Your task to perform on an android device: Open Android settings Image 0: 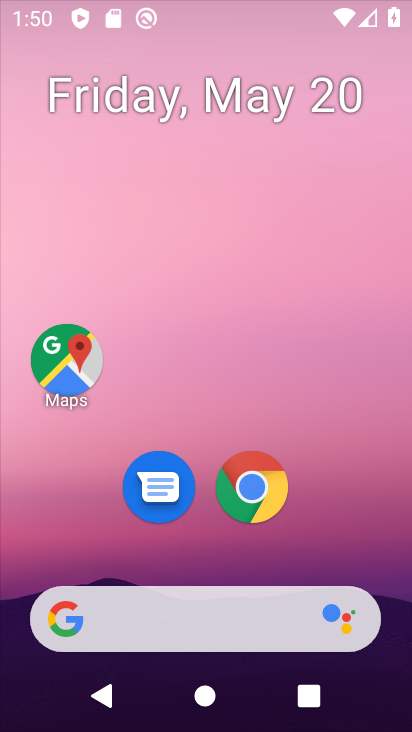
Step 0: press back button
Your task to perform on an android device: Open Android settings Image 1: 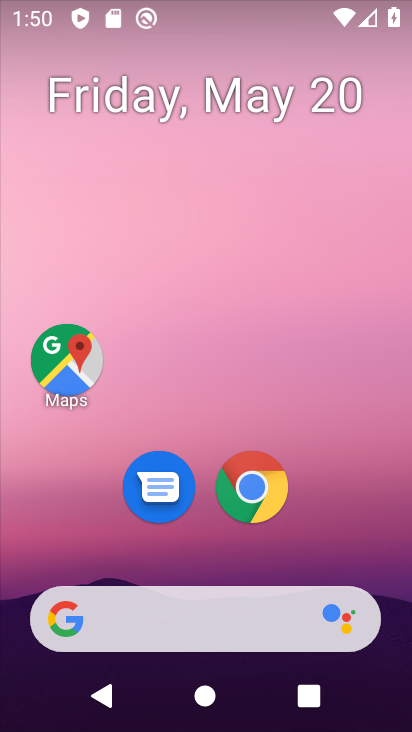
Step 1: drag from (252, 664) to (207, 50)
Your task to perform on an android device: Open Android settings Image 2: 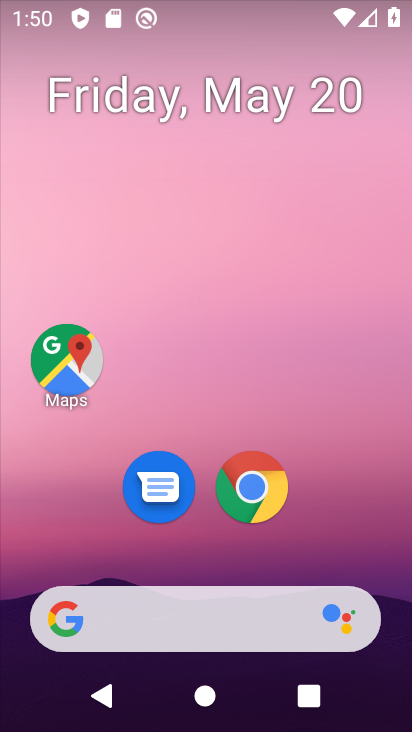
Step 2: drag from (274, 549) to (227, 99)
Your task to perform on an android device: Open Android settings Image 3: 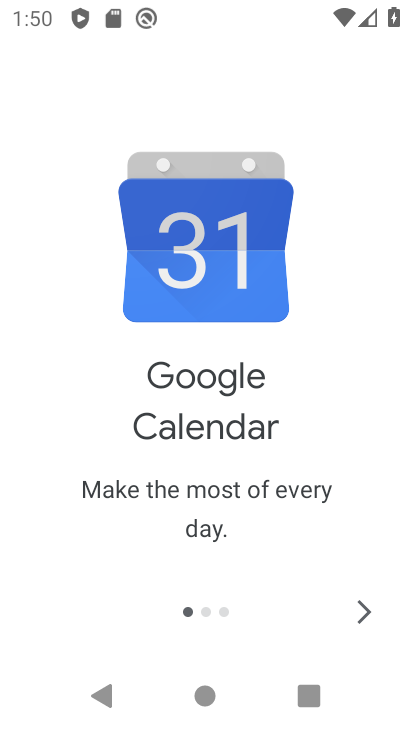
Step 3: click (364, 603)
Your task to perform on an android device: Open Android settings Image 4: 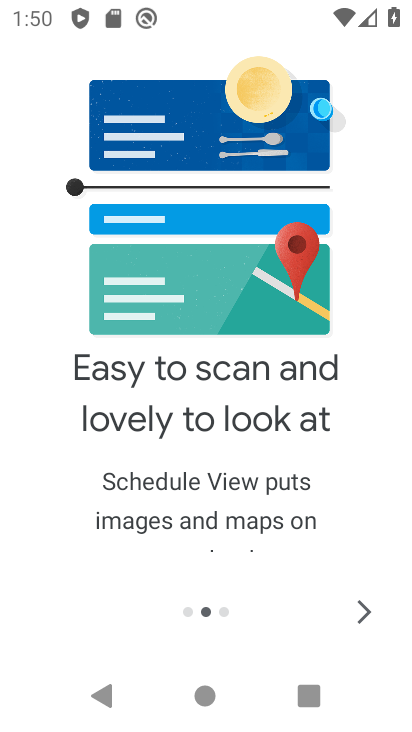
Step 4: click (376, 608)
Your task to perform on an android device: Open Android settings Image 5: 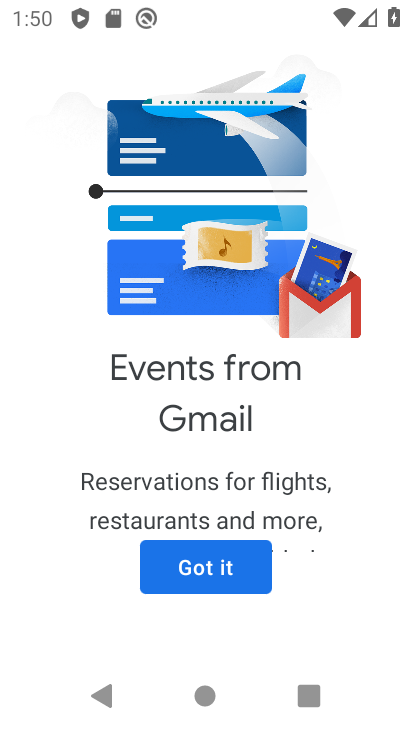
Step 5: click (241, 562)
Your task to perform on an android device: Open Android settings Image 6: 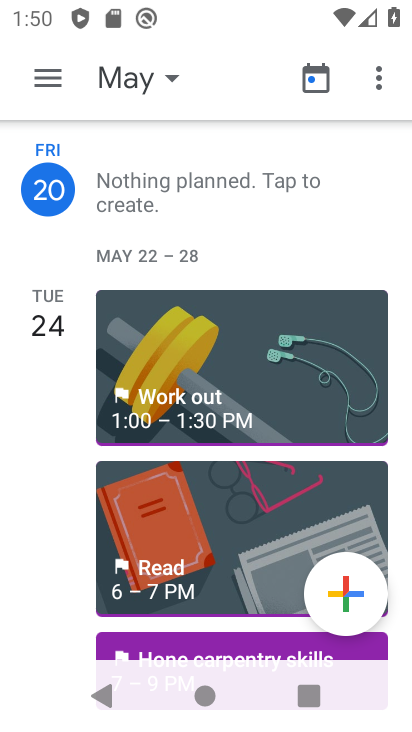
Step 6: click (46, 77)
Your task to perform on an android device: Open Android settings Image 7: 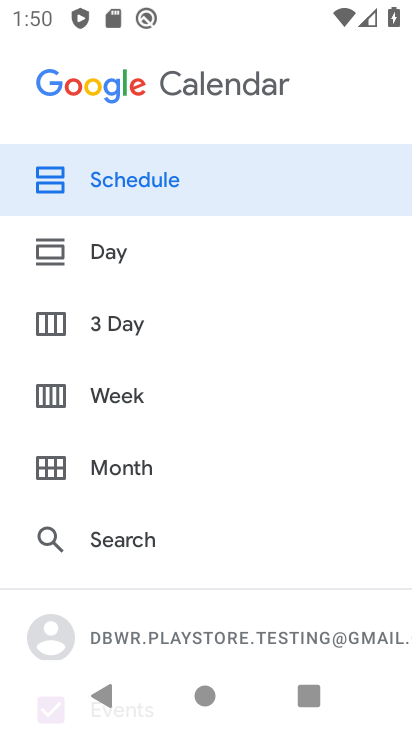
Step 7: press back button
Your task to perform on an android device: Open Android settings Image 8: 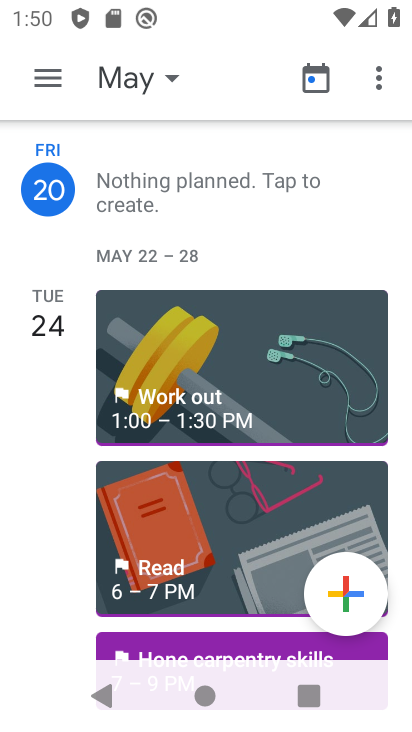
Step 8: press home button
Your task to perform on an android device: Open Android settings Image 9: 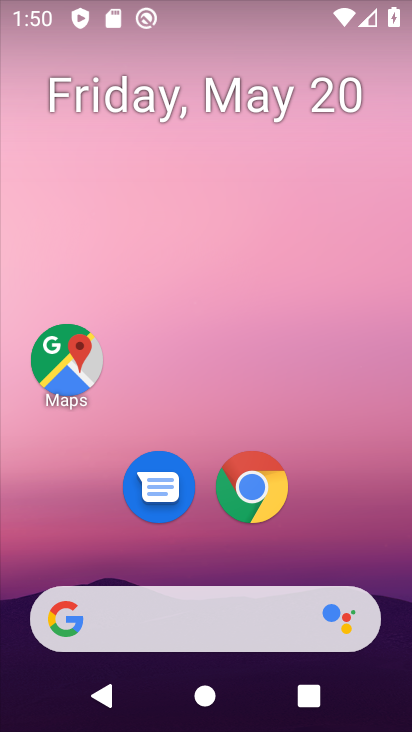
Step 9: drag from (254, 678) to (176, 27)
Your task to perform on an android device: Open Android settings Image 10: 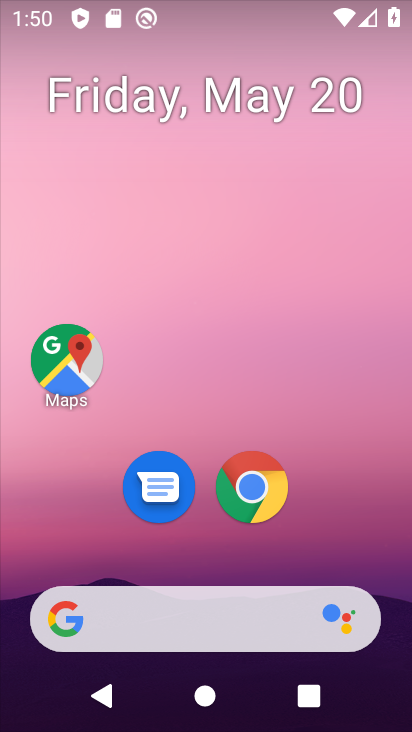
Step 10: drag from (354, 565) to (259, 0)
Your task to perform on an android device: Open Android settings Image 11: 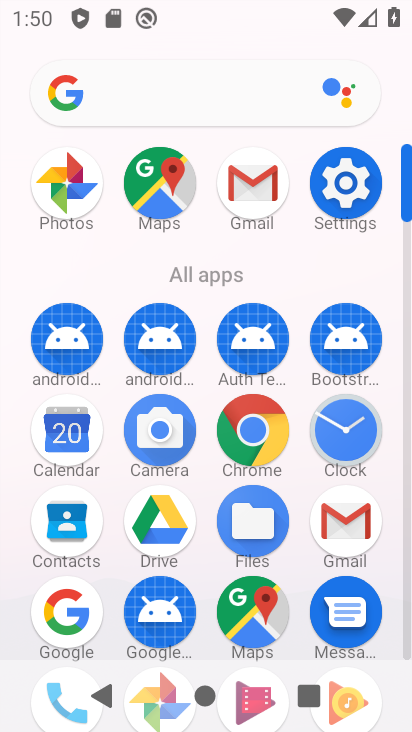
Step 11: click (341, 181)
Your task to perform on an android device: Open Android settings Image 12: 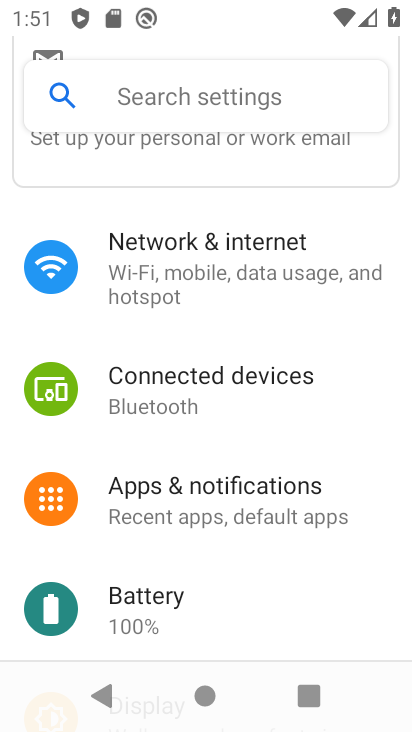
Step 12: drag from (251, 579) to (259, 261)
Your task to perform on an android device: Open Android settings Image 13: 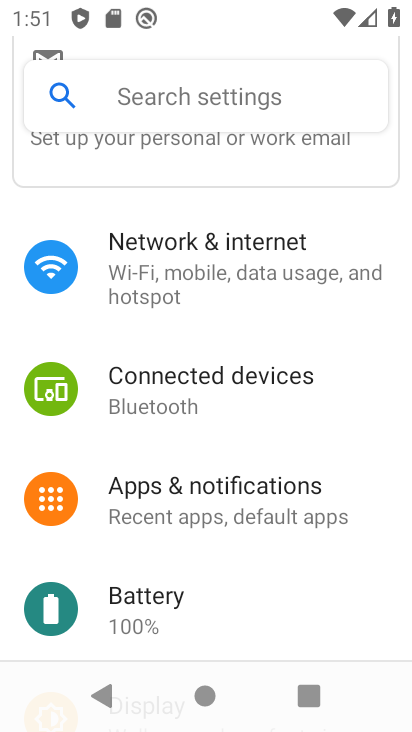
Step 13: drag from (212, 568) to (178, 128)
Your task to perform on an android device: Open Android settings Image 14: 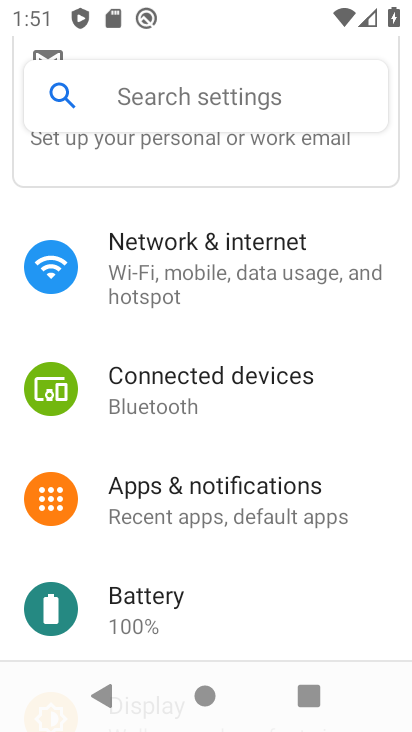
Step 14: drag from (310, 616) to (247, 114)
Your task to perform on an android device: Open Android settings Image 15: 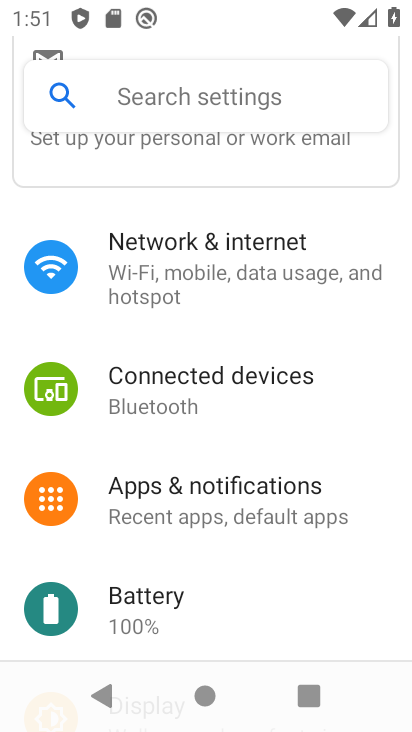
Step 15: drag from (220, 571) to (274, 164)
Your task to perform on an android device: Open Android settings Image 16: 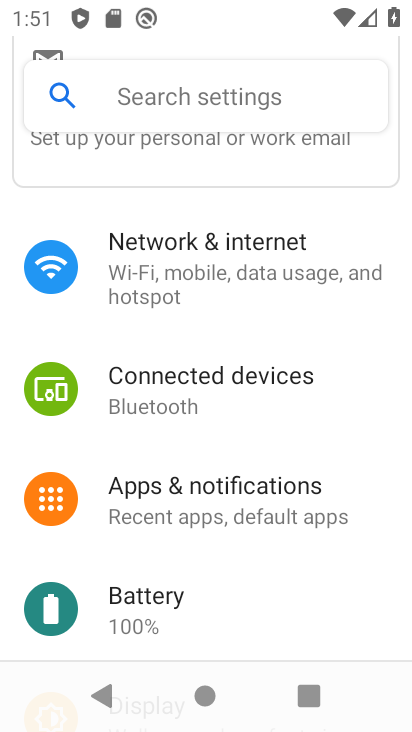
Step 16: drag from (205, 495) to (189, 146)
Your task to perform on an android device: Open Android settings Image 17: 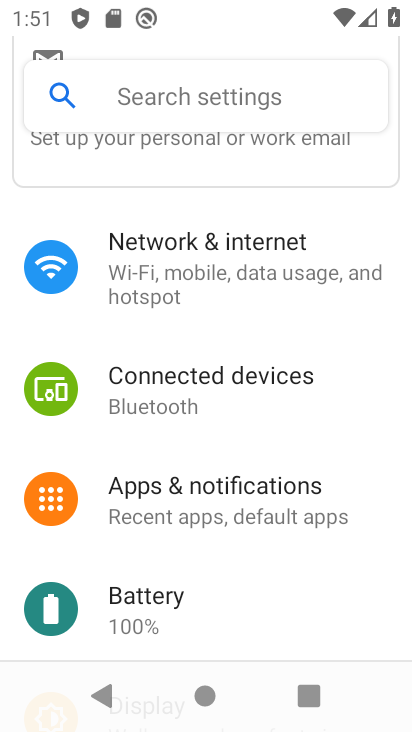
Step 17: drag from (197, 501) to (253, 5)
Your task to perform on an android device: Open Android settings Image 18: 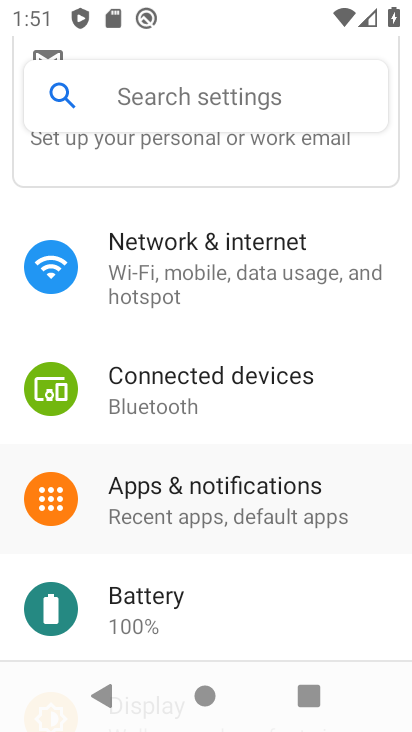
Step 18: drag from (268, 519) to (214, 180)
Your task to perform on an android device: Open Android settings Image 19: 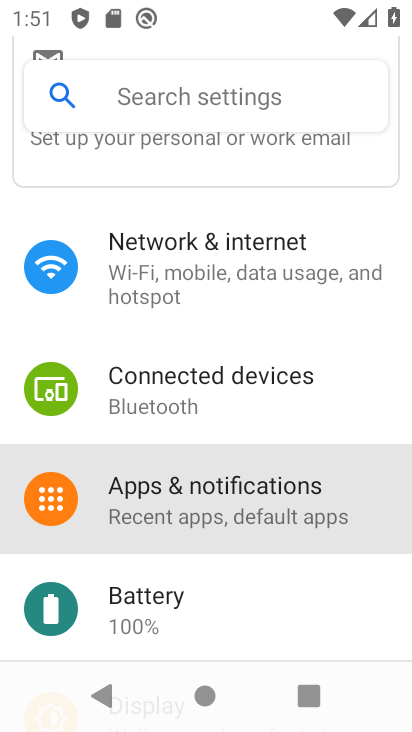
Step 19: drag from (233, 539) to (173, 67)
Your task to perform on an android device: Open Android settings Image 20: 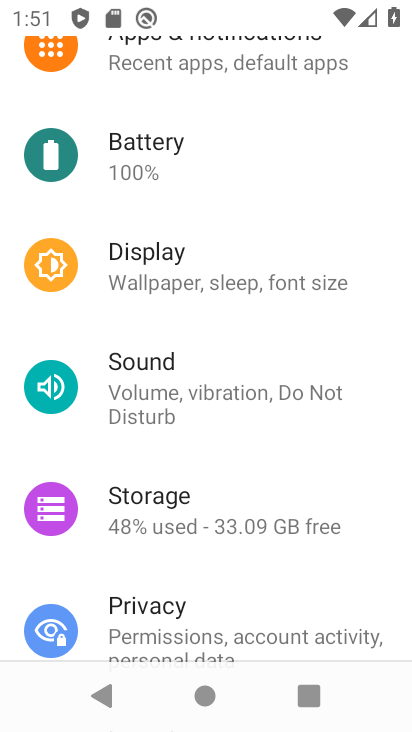
Step 20: drag from (229, 459) to (204, 117)
Your task to perform on an android device: Open Android settings Image 21: 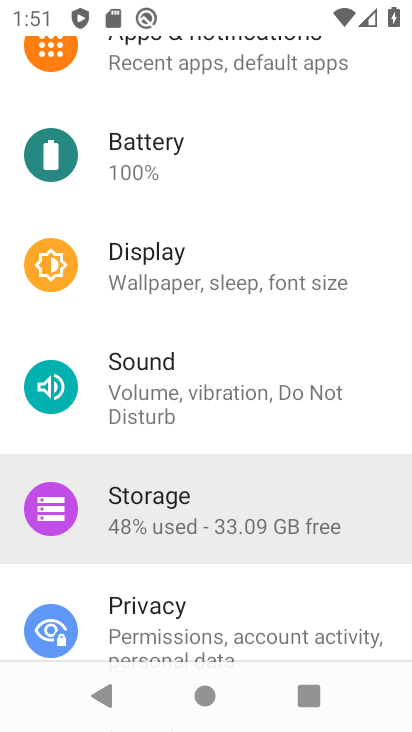
Step 21: drag from (236, 521) to (205, 62)
Your task to perform on an android device: Open Android settings Image 22: 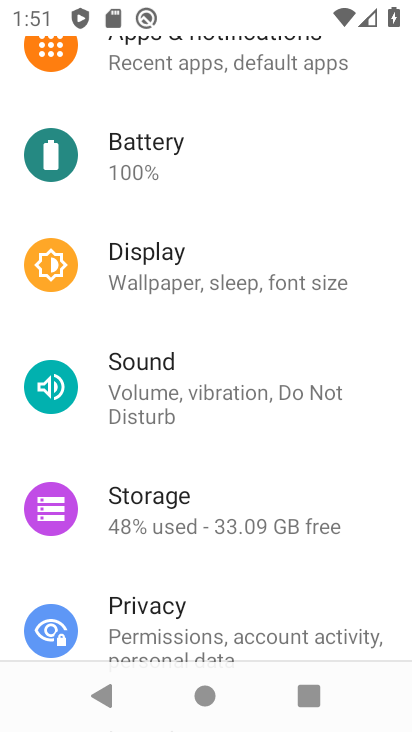
Step 22: click (110, 41)
Your task to perform on an android device: Open Android settings Image 23: 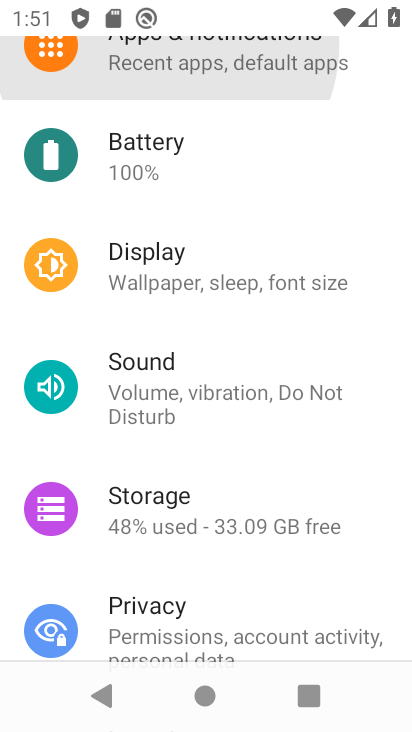
Step 23: drag from (171, 455) to (248, 69)
Your task to perform on an android device: Open Android settings Image 24: 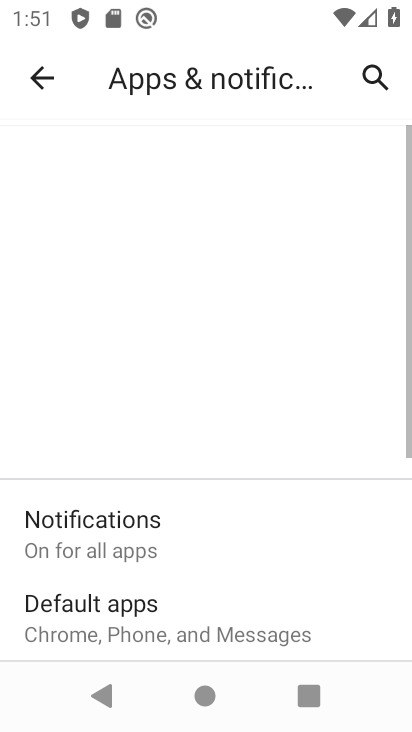
Step 24: drag from (236, 413) to (183, 79)
Your task to perform on an android device: Open Android settings Image 25: 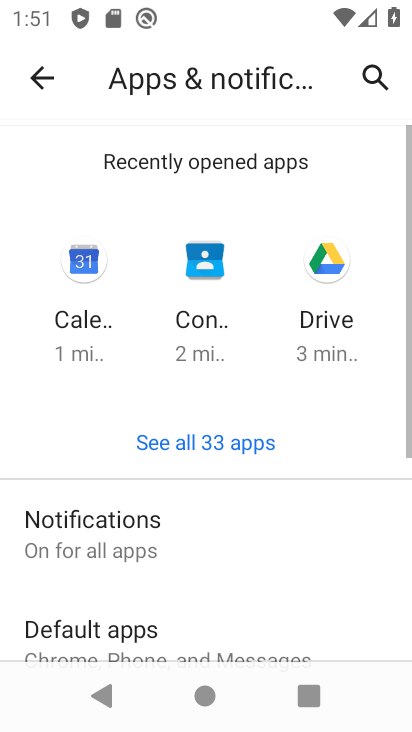
Step 25: click (37, 76)
Your task to perform on an android device: Open Android settings Image 26: 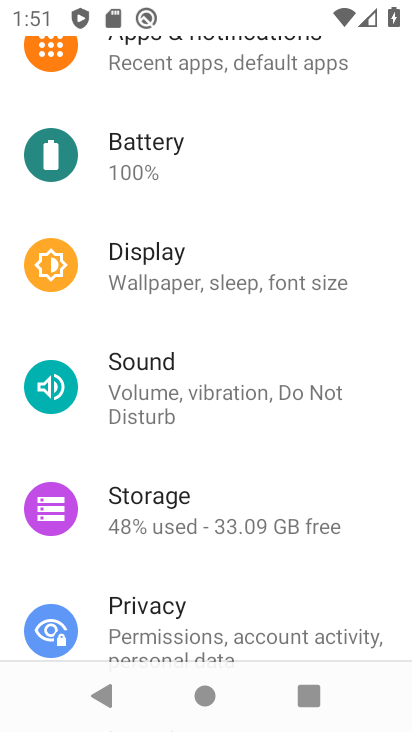
Step 26: drag from (185, 536) to (210, 104)
Your task to perform on an android device: Open Android settings Image 27: 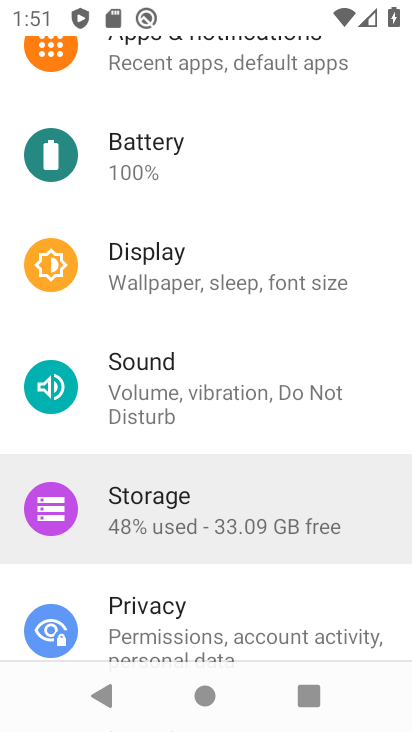
Step 27: drag from (199, 465) to (232, 20)
Your task to perform on an android device: Open Android settings Image 28: 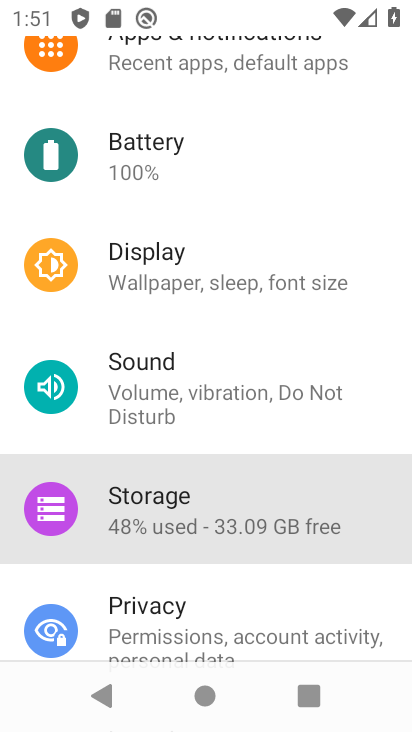
Step 28: drag from (254, 400) to (311, 100)
Your task to perform on an android device: Open Android settings Image 29: 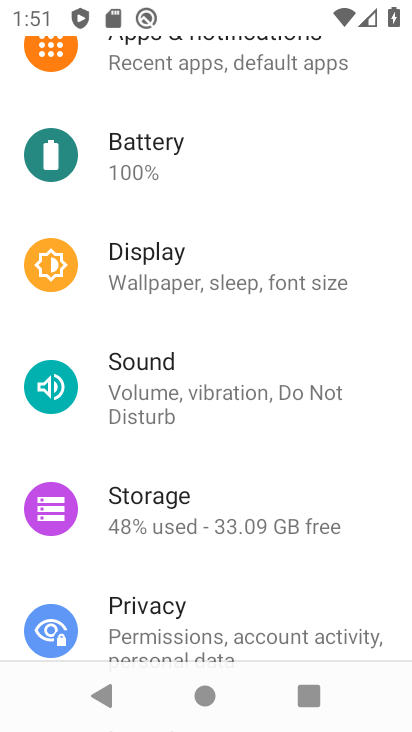
Step 29: drag from (250, 552) to (250, 208)
Your task to perform on an android device: Open Android settings Image 30: 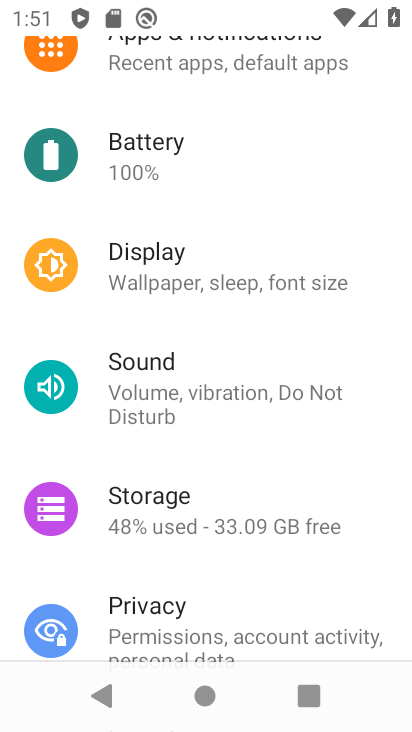
Step 30: drag from (220, 459) to (227, 199)
Your task to perform on an android device: Open Android settings Image 31: 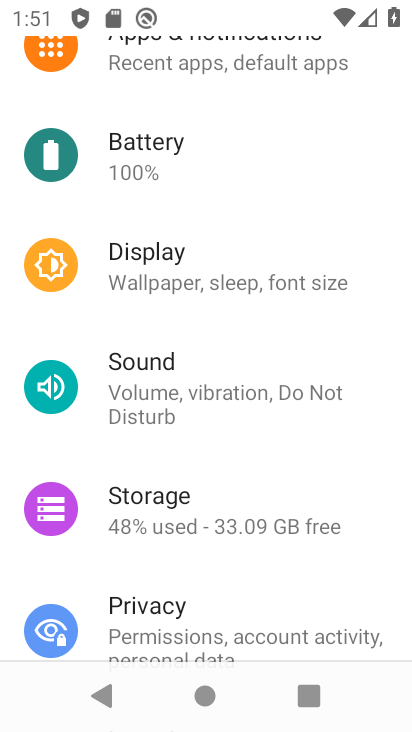
Step 31: drag from (182, 572) to (126, 186)
Your task to perform on an android device: Open Android settings Image 32: 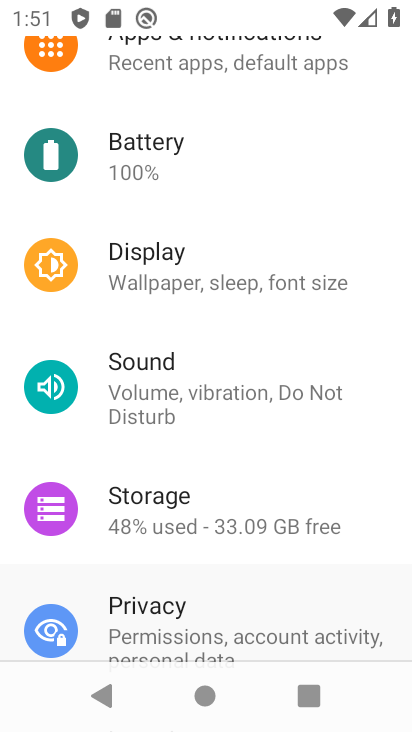
Step 32: drag from (232, 498) to (210, 165)
Your task to perform on an android device: Open Android settings Image 33: 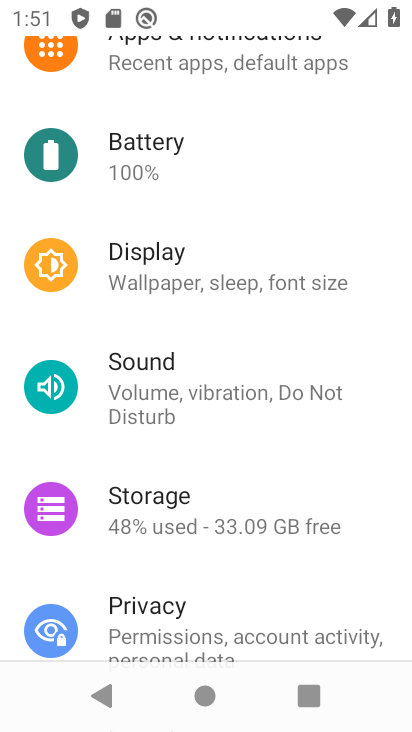
Step 33: drag from (231, 563) to (303, 89)
Your task to perform on an android device: Open Android settings Image 34: 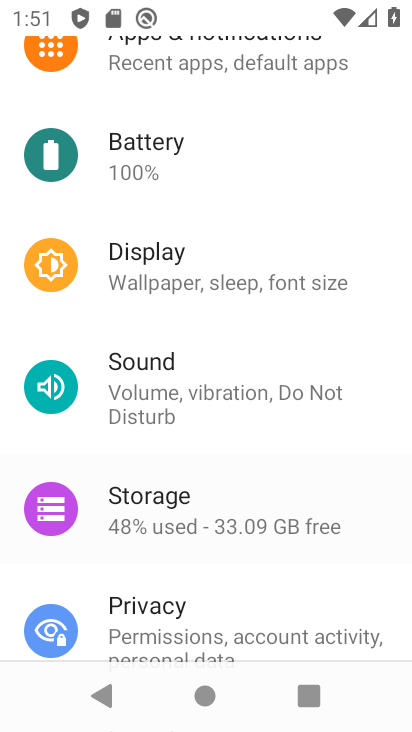
Step 34: drag from (259, 518) to (314, 152)
Your task to perform on an android device: Open Android settings Image 35: 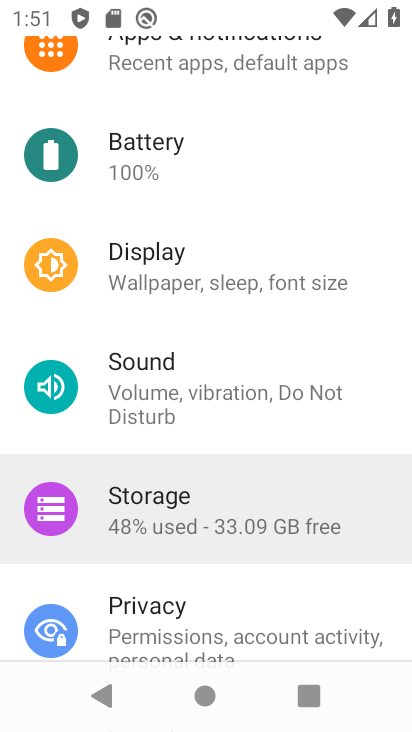
Step 35: drag from (274, 502) to (266, 14)
Your task to perform on an android device: Open Android settings Image 36: 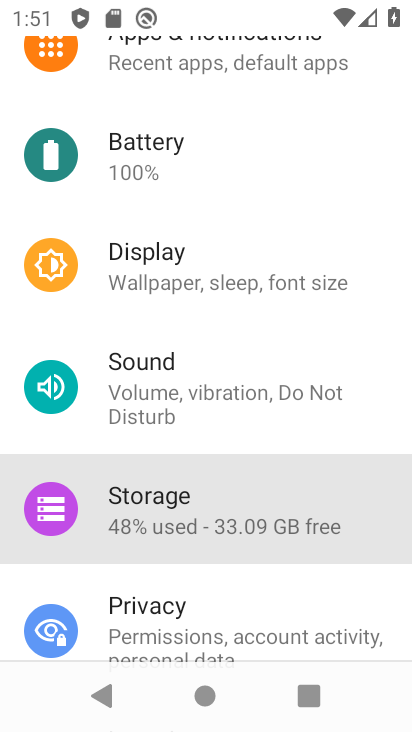
Step 36: drag from (265, 509) to (255, 176)
Your task to perform on an android device: Open Android settings Image 37: 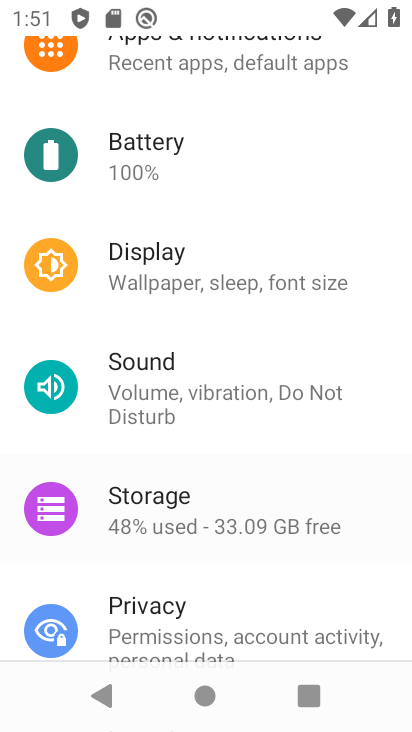
Step 37: drag from (242, 506) to (201, 100)
Your task to perform on an android device: Open Android settings Image 38: 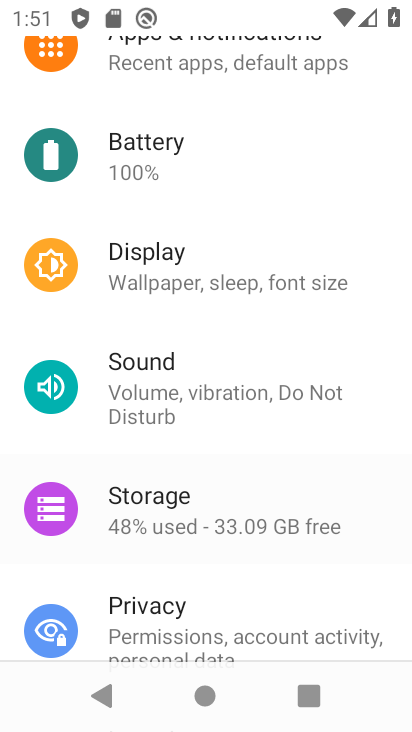
Step 38: drag from (231, 532) to (161, 48)
Your task to perform on an android device: Open Android settings Image 39: 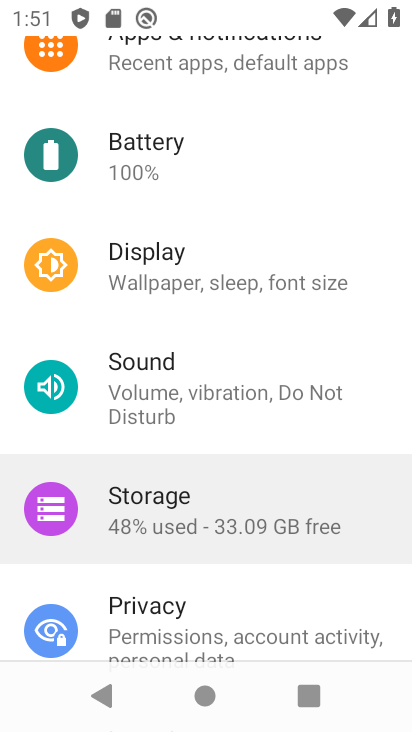
Step 39: drag from (245, 429) to (220, 66)
Your task to perform on an android device: Open Android settings Image 40: 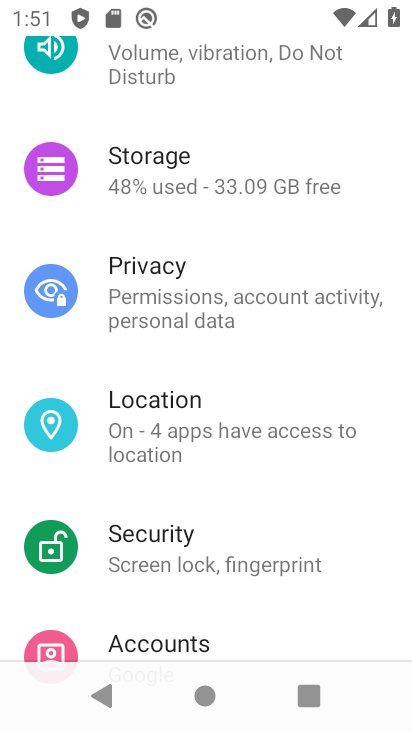
Step 40: drag from (248, 462) to (230, 67)
Your task to perform on an android device: Open Android settings Image 41: 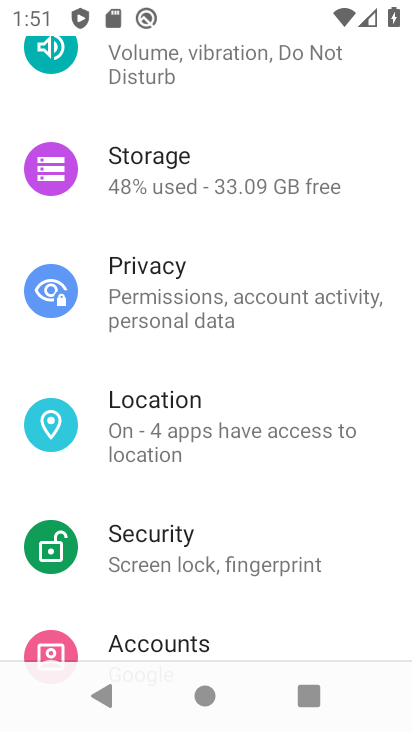
Step 41: drag from (232, 394) to (237, 33)
Your task to perform on an android device: Open Android settings Image 42: 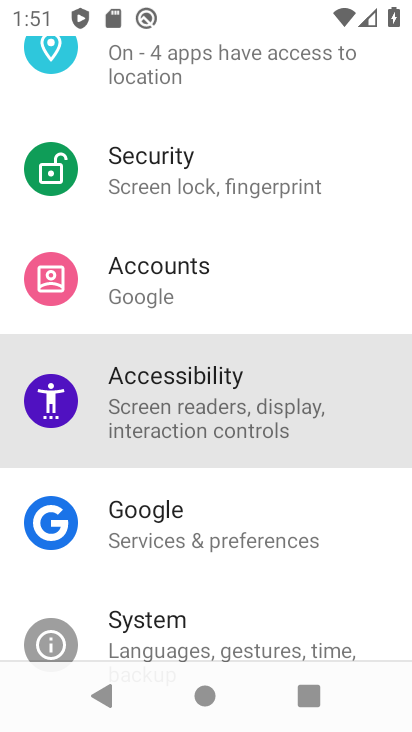
Step 42: drag from (210, 413) to (200, 7)
Your task to perform on an android device: Open Android settings Image 43: 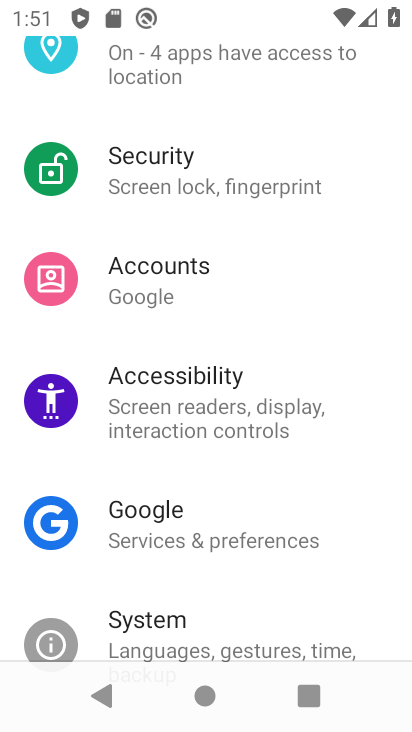
Step 43: drag from (188, 572) to (283, 18)
Your task to perform on an android device: Open Android settings Image 44: 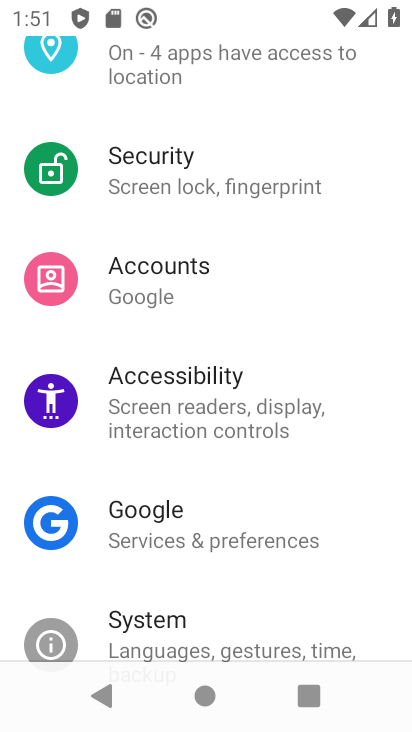
Step 44: drag from (277, 434) to (248, 56)
Your task to perform on an android device: Open Android settings Image 45: 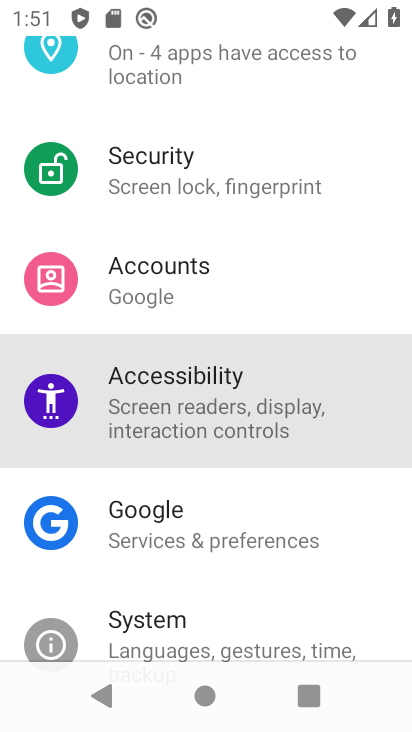
Step 45: drag from (272, 426) to (260, 15)
Your task to perform on an android device: Open Android settings Image 46: 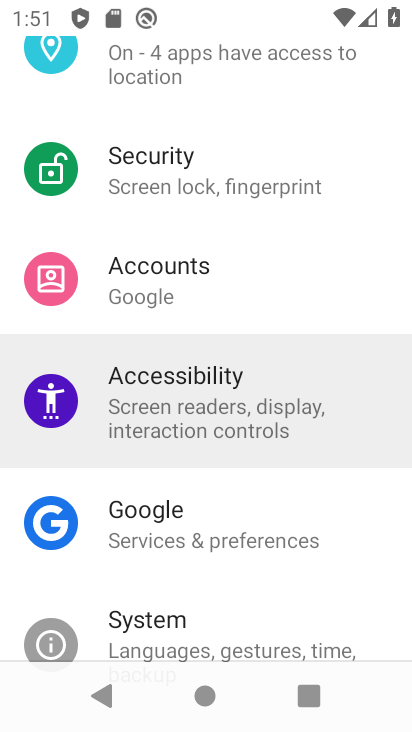
Step 46: drag from (248, 462) to (207, 94)
Your task to perform on an android device: Open Android settings Image 47: 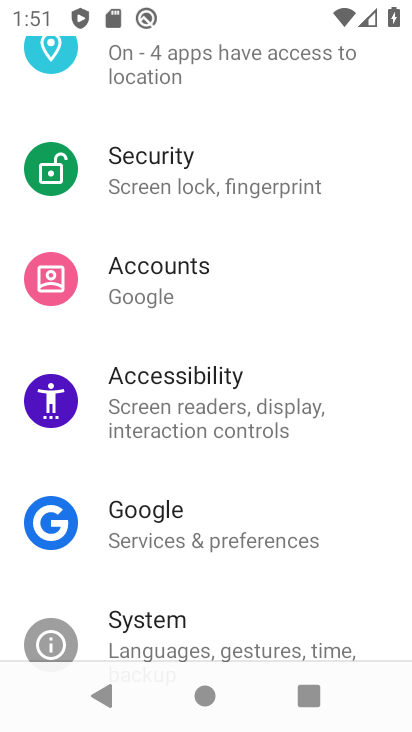
Step 47: drag from (216, 464) to (201, 5)
Your task to perform on an android device: Open Android settings Image 48: 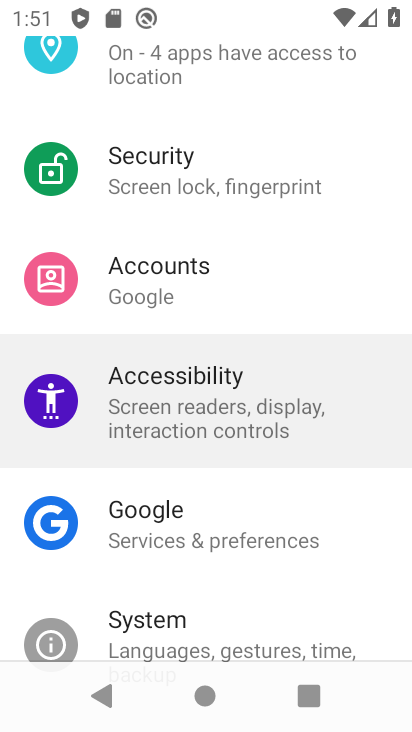
Step 48: drag from (255, 512) to (199, 47)
Your task to perform on an android device: Open Android settings Image 49: 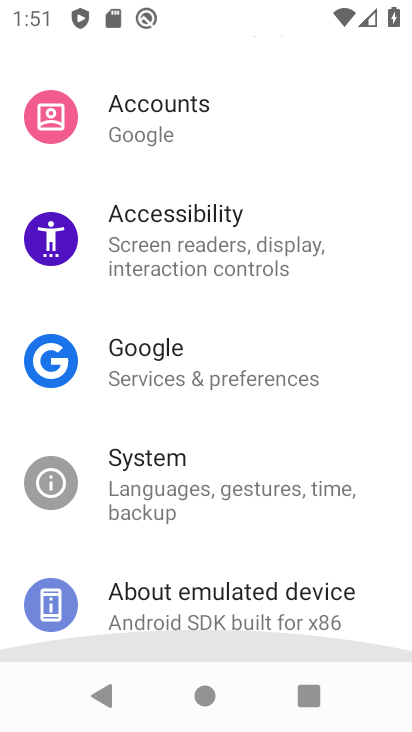
Step 49: drag from (187, 537) to (168, 96)
Your task to perform on an android device: Open Android settings Image 50: 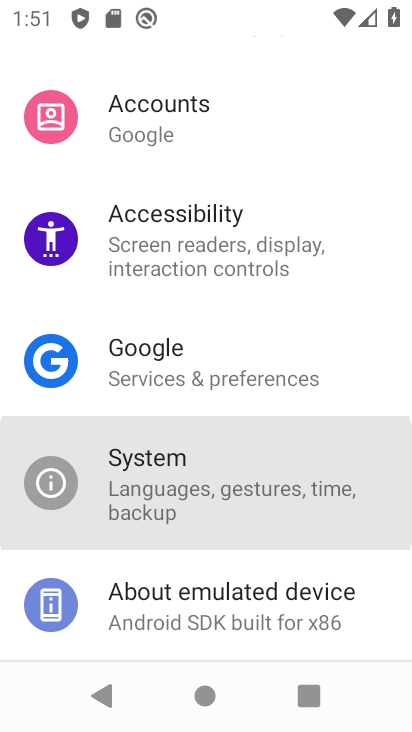
Step 50: drag from (205, 475) to (206, 98)
Your task to perform on an android device: Open Android settings Image 51: 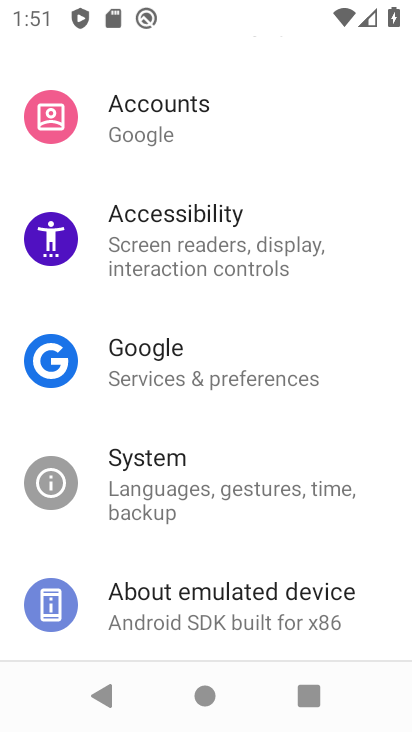
Step 51: click (187, 604)
Your task to perform on an android device: Open Android settings Image 52: 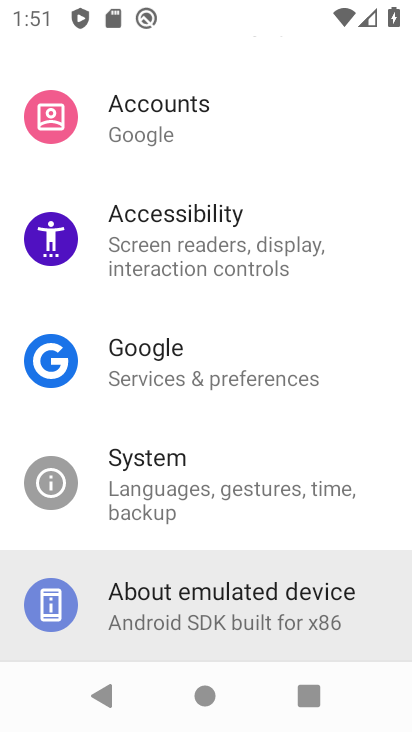
Step 52: click (187, 604)
Your task to perform on an android device: Open Android settings Image 53: 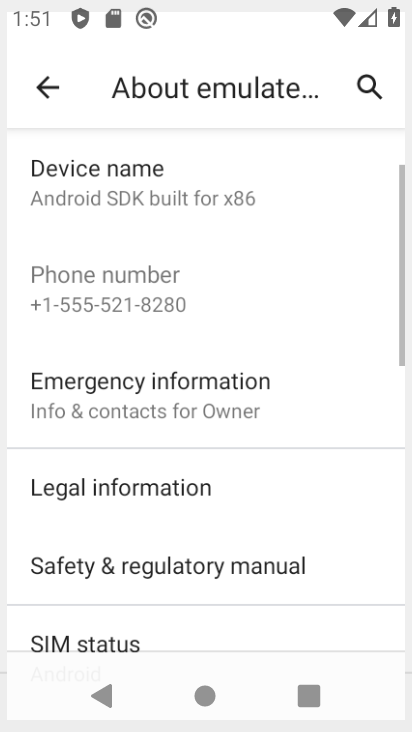
Step 53: click (185, 603)
Your task to perform on an android device: Open Android settings Image 54: 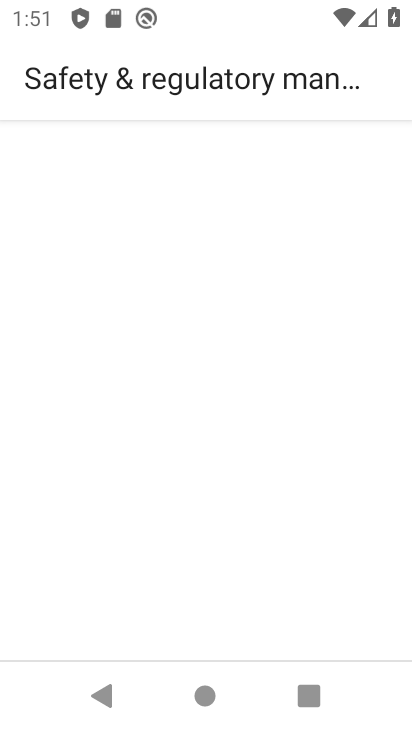
Step 54: task complete